Your task to perform on an android device: all mails in gmail Image 0: 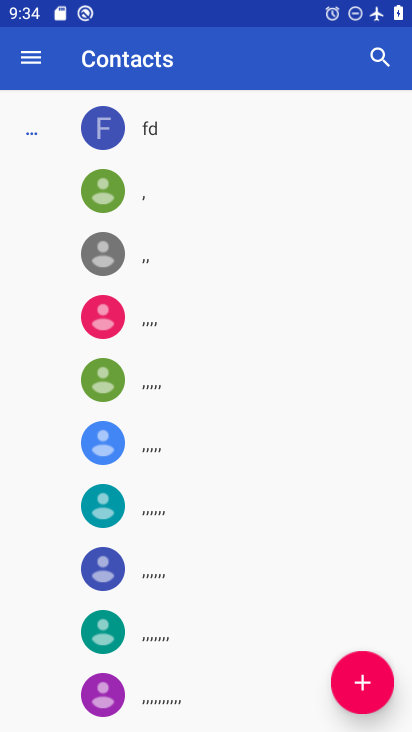
Step 0: press home button
Your task to perform on an android device: all mails in gmail Image 1: 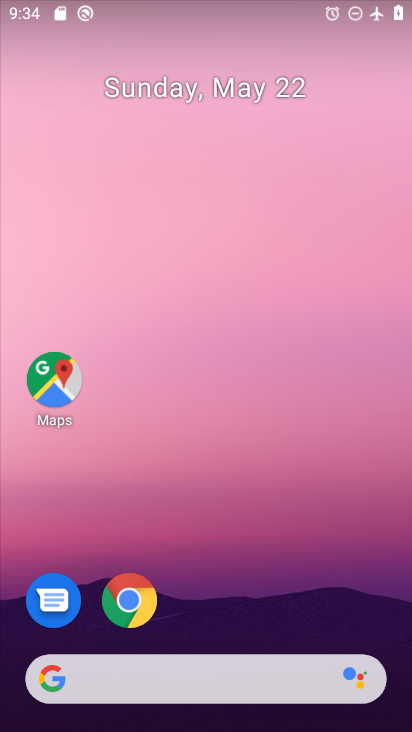
Step 1: drag from (219, 602) to (410, 261)
Your task to perform on an android device: all mails in gmail Image 2: 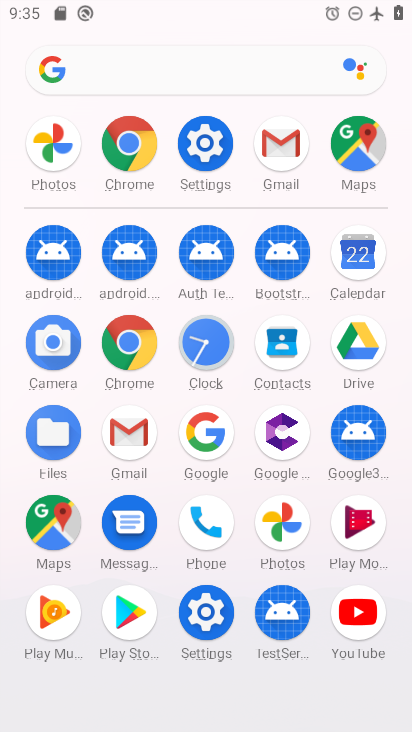
Step 2: drag from (124, 487) to (148, 303)
Your task to perform on an android device: all mails in gmail Image 3: 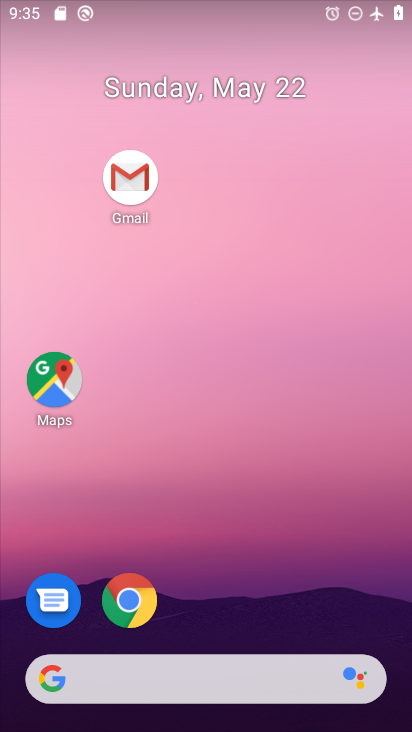
Step 3: click (134, 193)
Your task to perform on an android device: all mails in gmail Image 4: 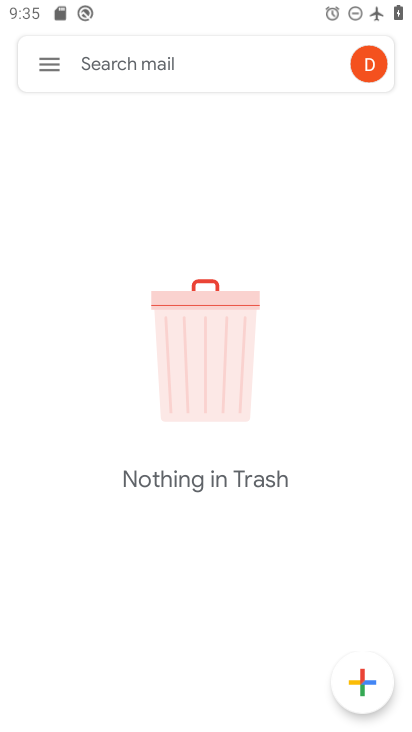
Step 4: click (42, 65)
Your task to perform on an android device: all mails in gmail Image 5: 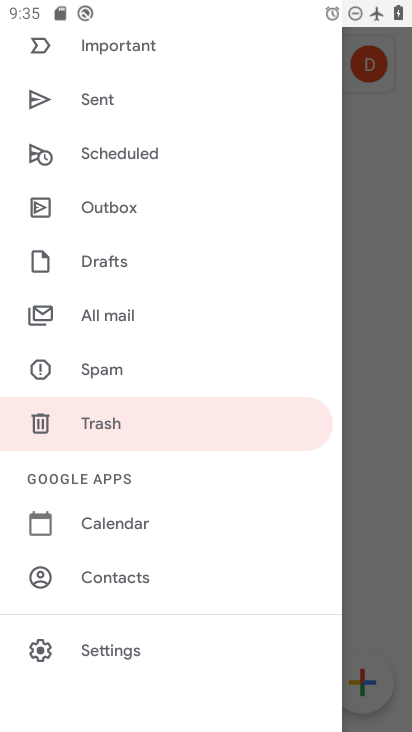
Step 5: click (159, 318)
Your task to perform on an android device: all mails in gmail Image 6: 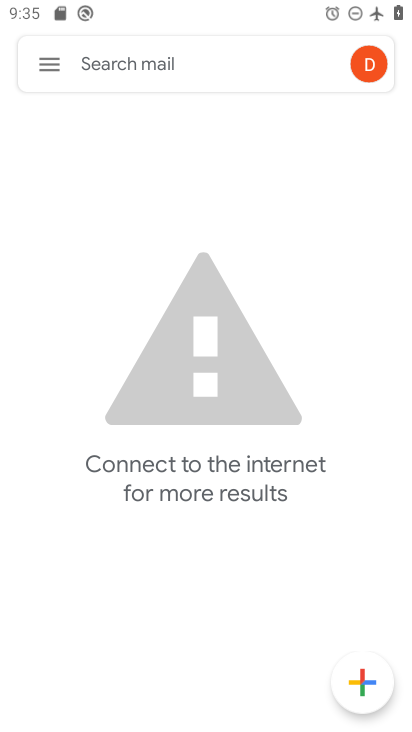
Step 6: task complete